Your task to perform on an android device: install app "PUBG MOBILE" Image 0: 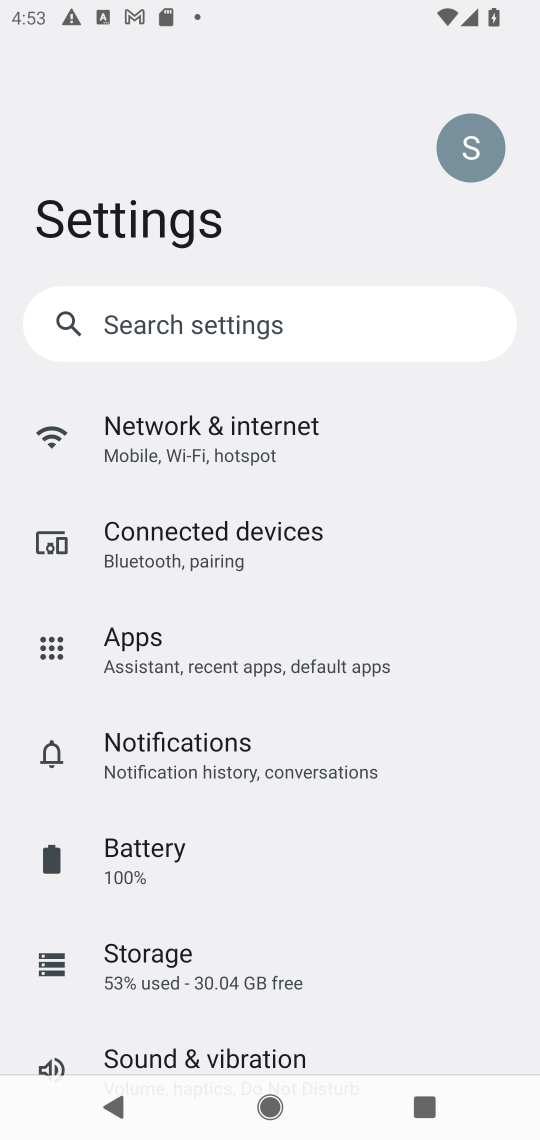
Step 0: press home button
Your task to perform on an android device: install app "PUBG MOBILE" Image 1: 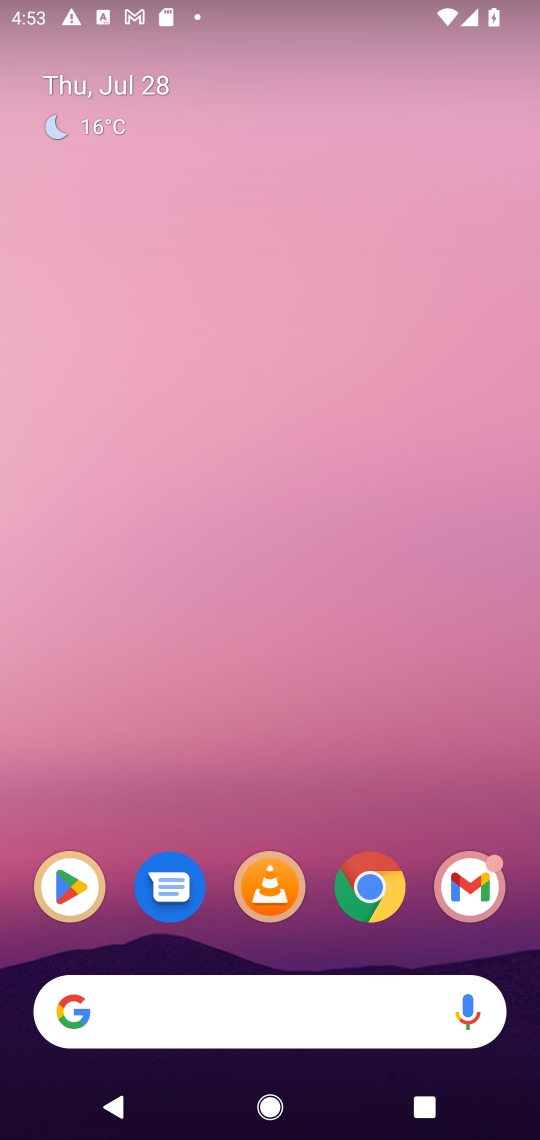
Step 1: click (55, 901)
Your task to perform on an android device: install app "PUBG MOBILE" Image 2: 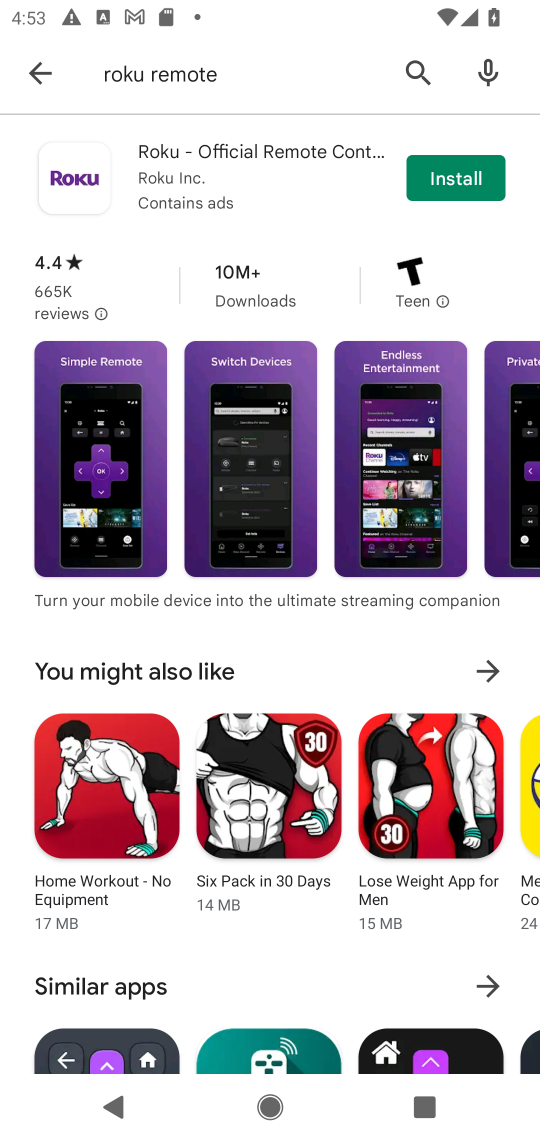
Step 2: click (223, 72)
Your task to perform on an android device: install app "PUBG MOBILE" Image 3: 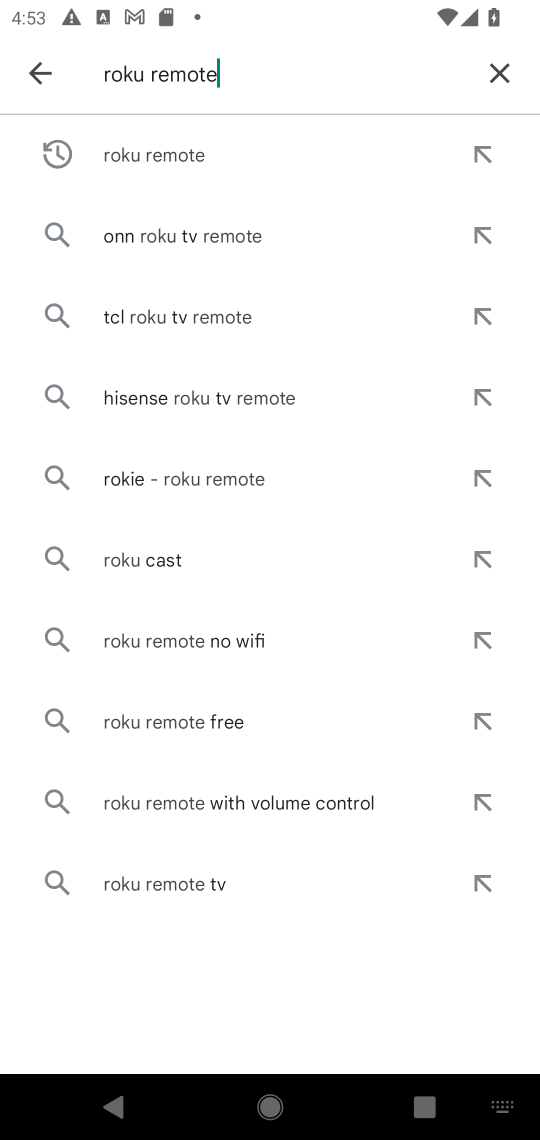
Step 3: click (497, 70)
Your task to perform on an android device: install app "PUBG MOBILE" Image 4: 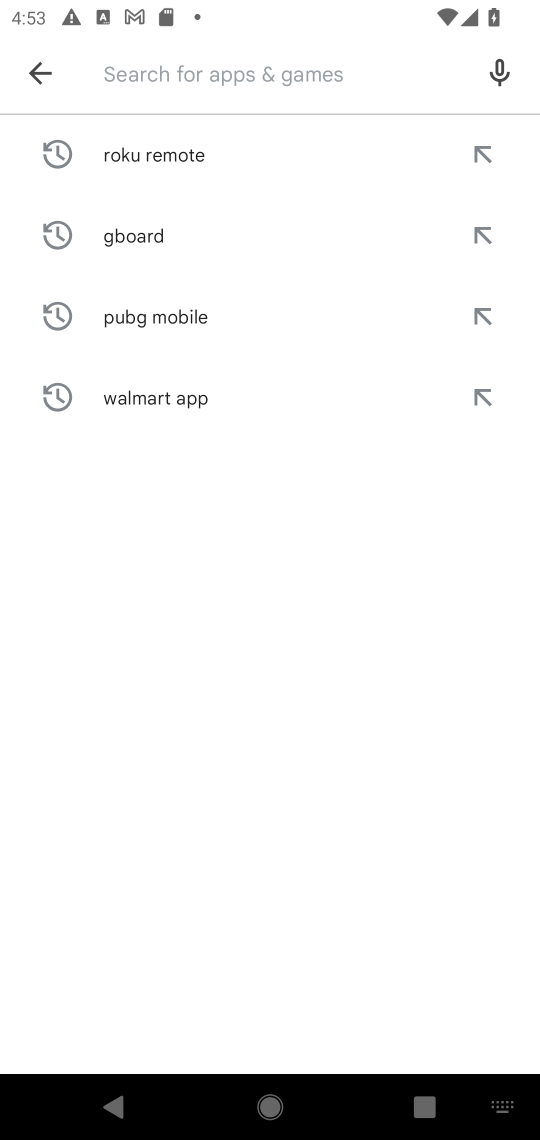
Step 4: type "PUBG Mobile"
Your task to perform on an android device: install app "PUBG MOBILE" Image 5: 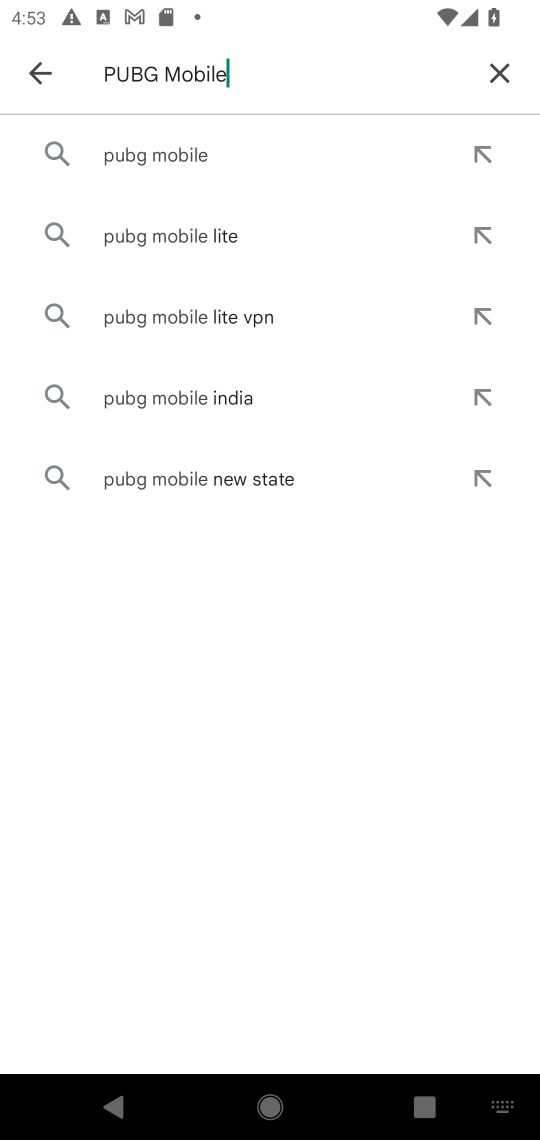
Step 5: click (198, 156)
Your task to perform on an android device: install app "PUBG MOBILE" Image 6: 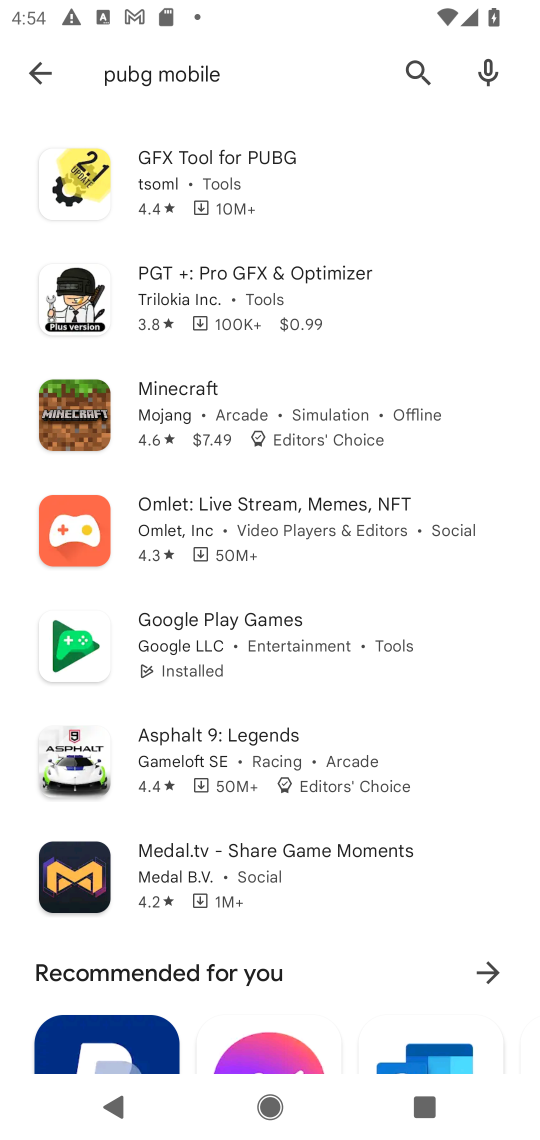
Step 6: task complete